Your task to perform on an android device: set default search engine in the chrome app Image 0: 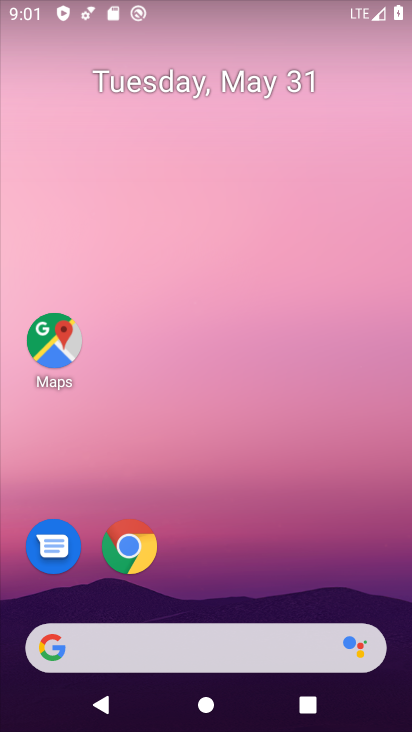
Step 0: click (133, 543)
Your task to perform on an android device: set default search engine in the chrome app Image 1: 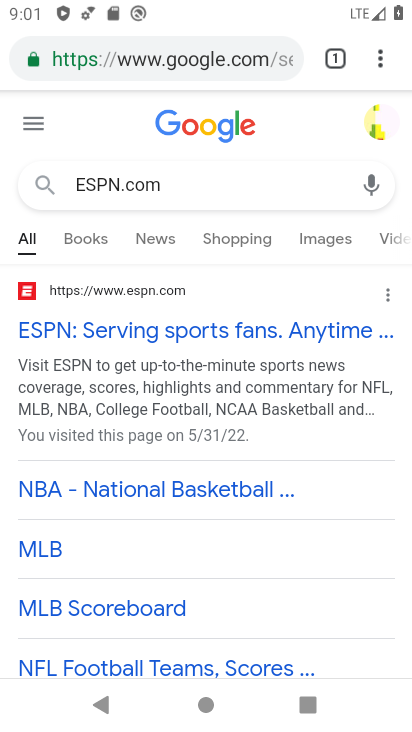
Step 1: click (374, 56)
Your task to perform on an android device: set default search engine in the chrome app Image 2: 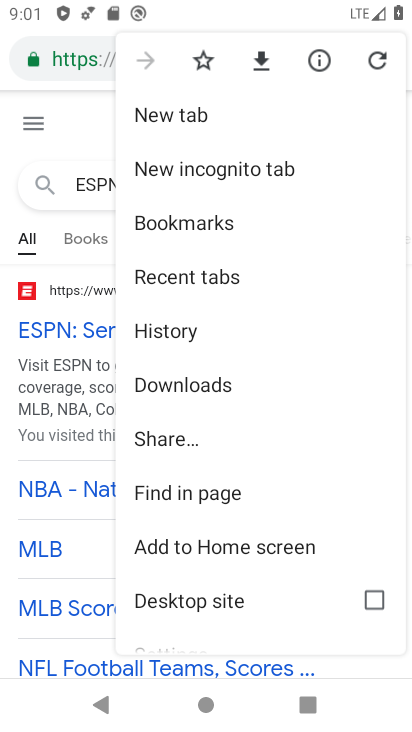
Step 2: drag from (294, 605) to (299, 375)
Your task to perform on an android device: set default search engine in the chrome app Image 3: 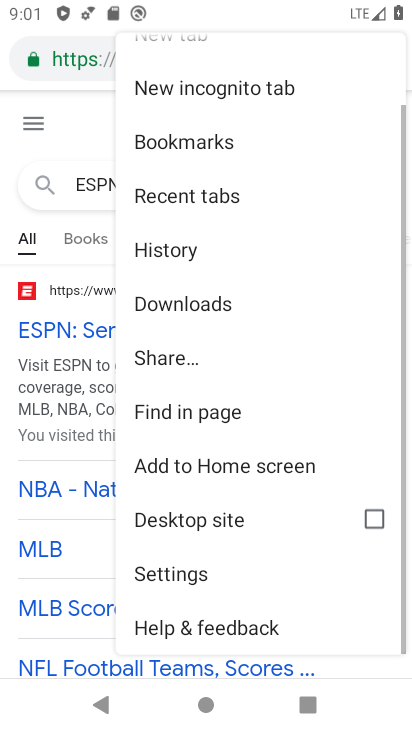
Step 3: click (159, 568)
Your task to perform on an android device: set default search engine in the chrome app Image 4: 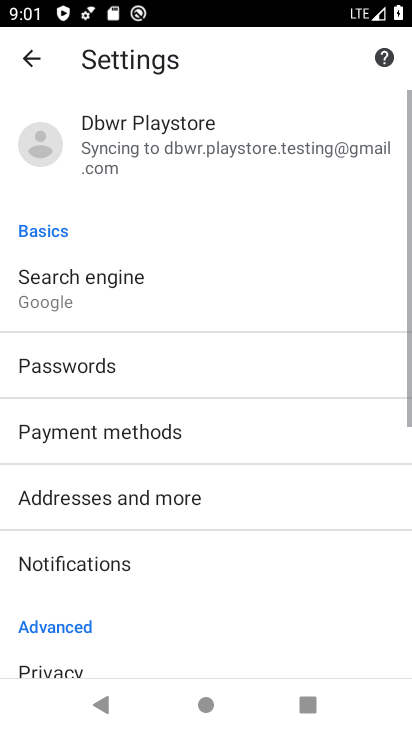
Step 4: click (64, 282)
Your task to perform on an android device: set default search engine in the chrome app Image 5: 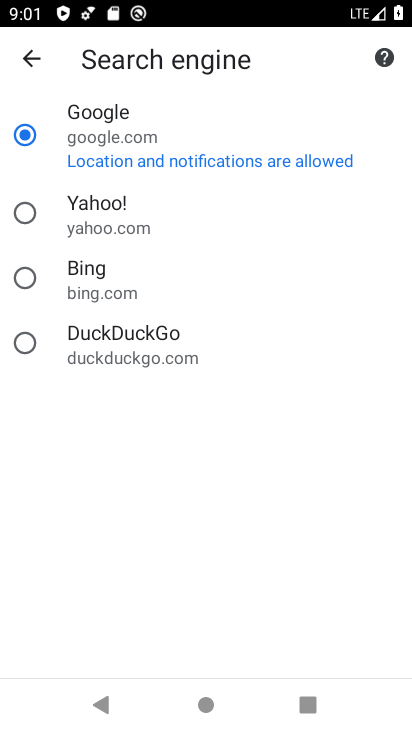
Step 5: task complete